Your task to perform on an android device: turn on improve location accuracy Image 0: 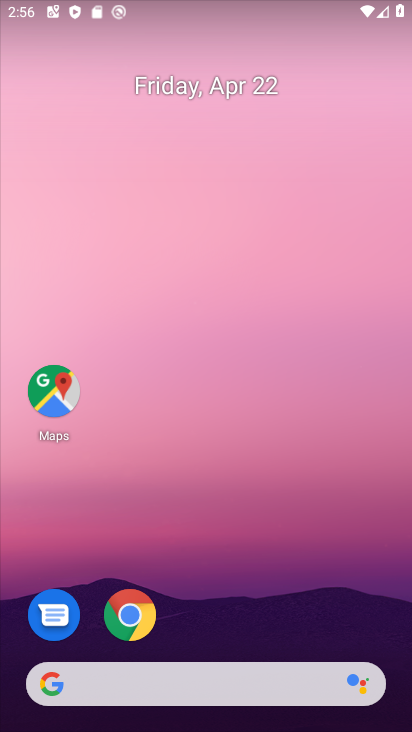
Step 0: drag from (208, 600) to (208, 149)
Your task to perform on an android device: turn on improve location accuracy Image 1: 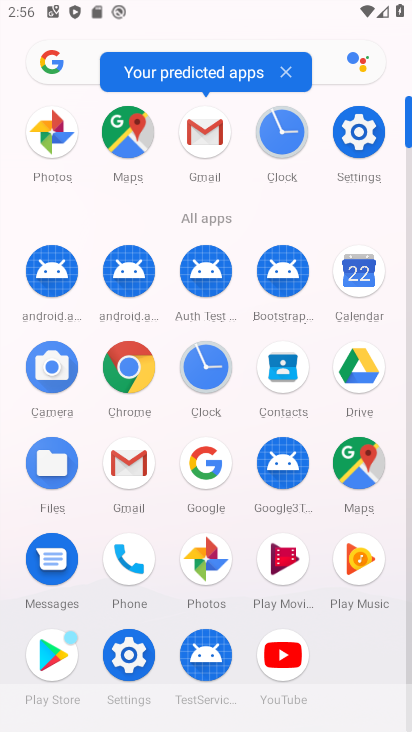
Step 1: click (349, 142)
Your task to perform on an android device: turn on improve location accuracy Image 2: 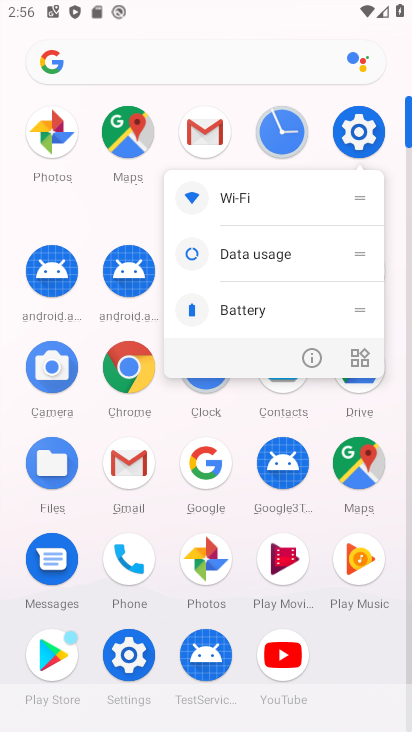
Step 2: click (364, 130)
Your task to perform on an android device: turn on improve location accuracy Image 3: 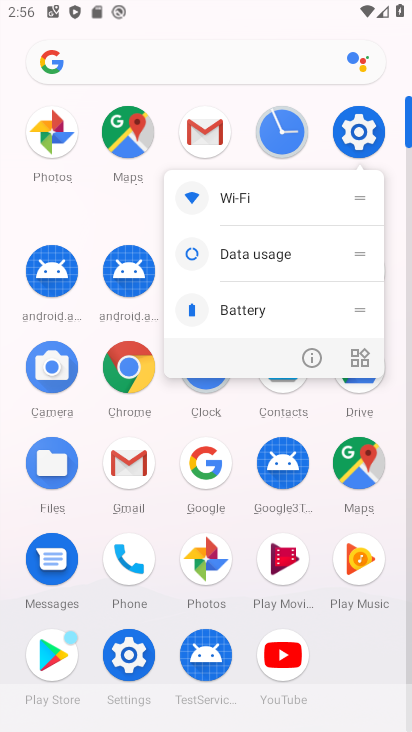
Step 3: click (355, 137)
Your task to perform on an android device: turn on improve location accuracy Image 4: 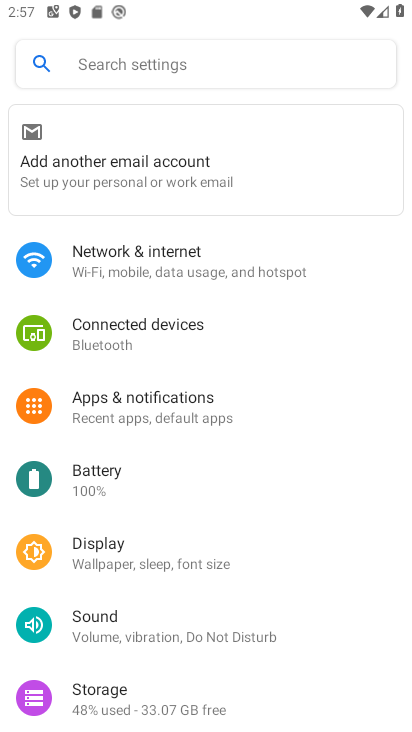
Step 4: drag from (169, 630) to (169, 383)
Your task to perform on an android device: turn on improve location accuracy Image 5: 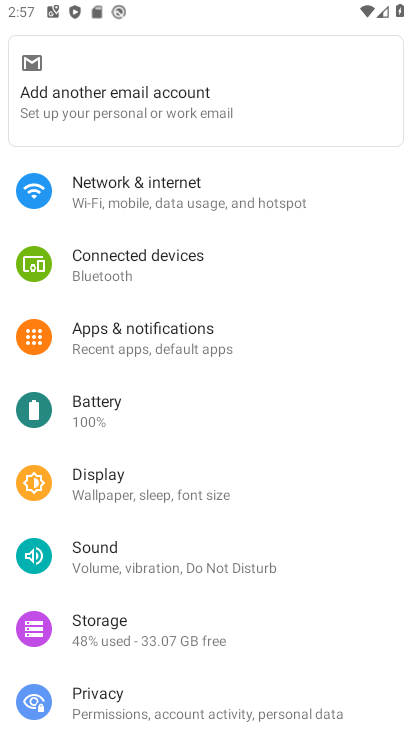
Step 5: drag from (113, 681) to (149, 347)
Your task to perform on an android device: turn on improve location accuracy Image 6: 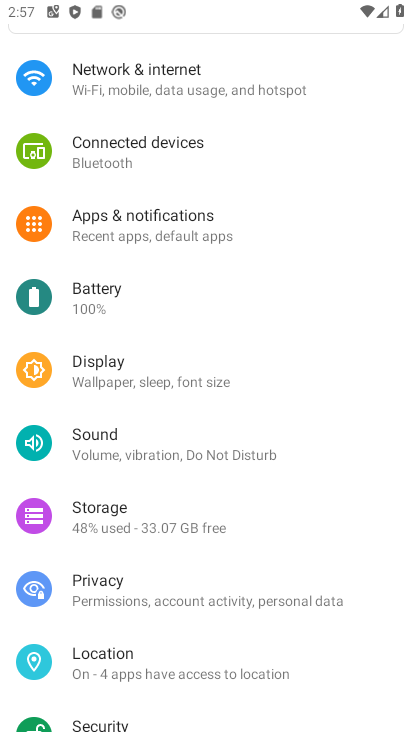
Step 6: click (115, 659)
Your task to perform on an android device: turn on improve location accuracy Image 7: 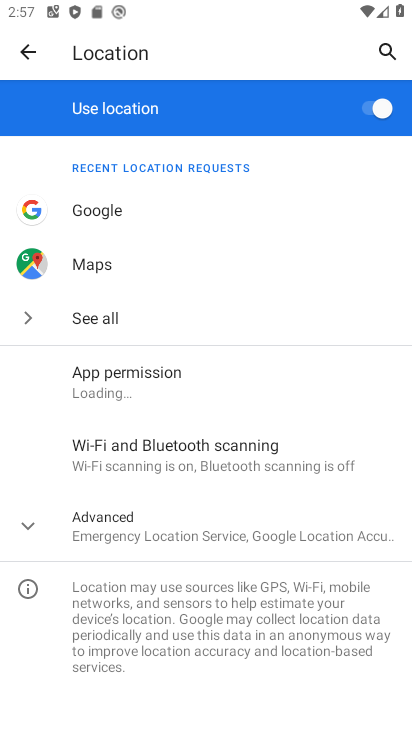
Step 7: click (121, 525)
Your task to perform on an android device: turn on improve location accuracy Image 8: 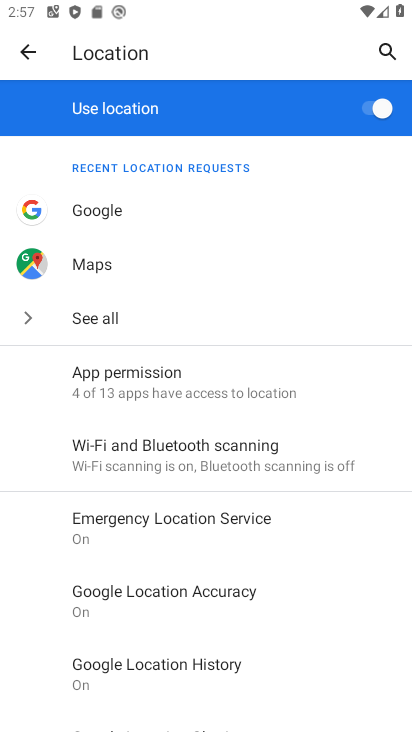
Step 8: click (112, 595)
Your task to perform on an android device: turn on improve location accuracy Image 9: 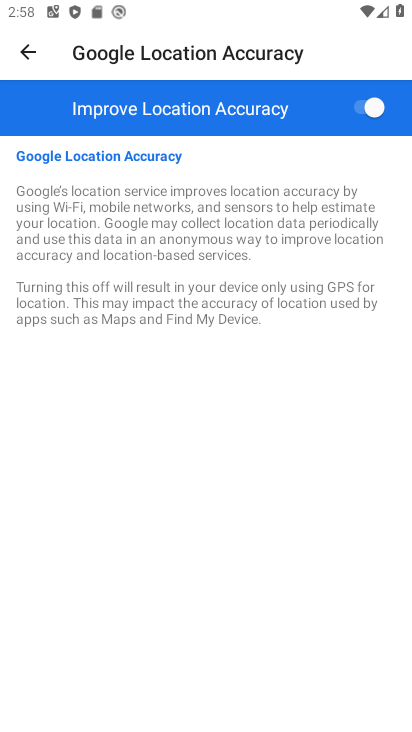
Step 9: task complete